Your task to perform on an android device: Is it going to rain this weekend? Image 0: 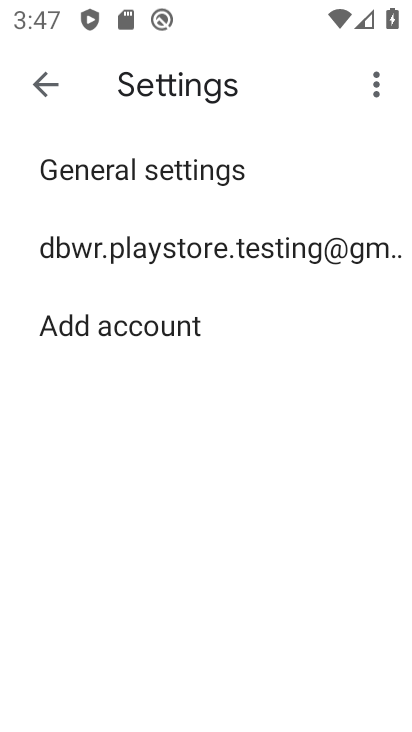
Step 0: press home button
Your task to perform on an android device: Is it going to rain this weekend? Image 1: 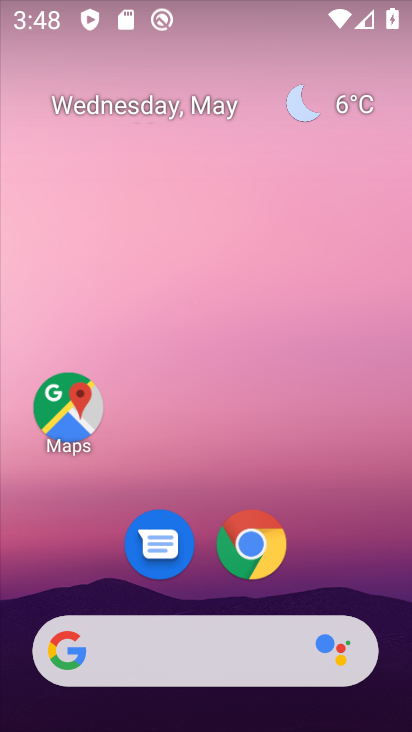
Step 1: click (150, 647)
Your task to perform on an android device: Is it going to rain this weekend? Image 2: 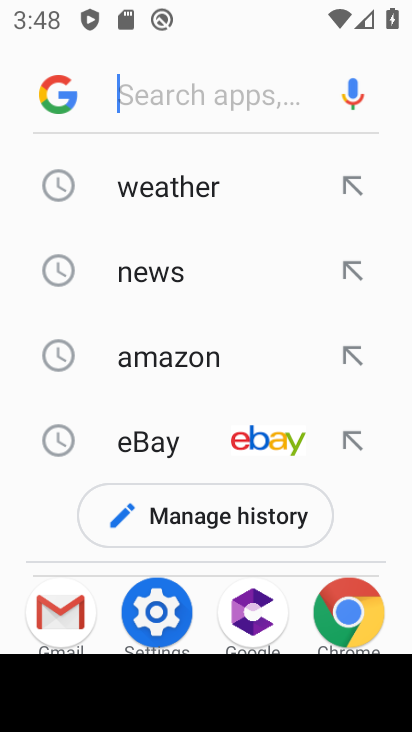
Step 2: click (164, 280)
Your task to perform on an android device: Is it going to rain this weekend? Image 3: 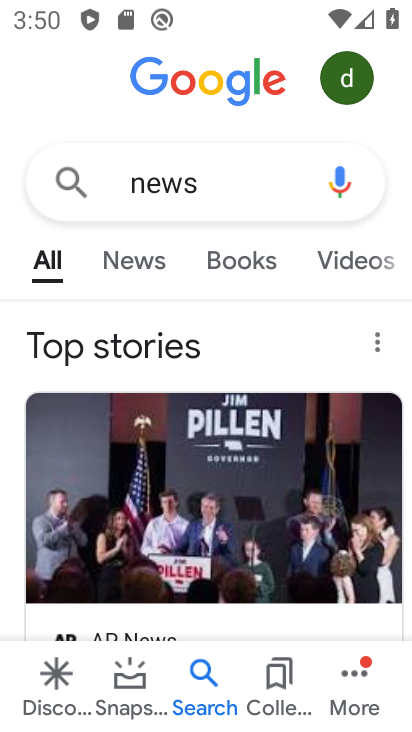
Step 3: task complete